Your task to perform on an android device: Open Chrome and go to settings Image 0: 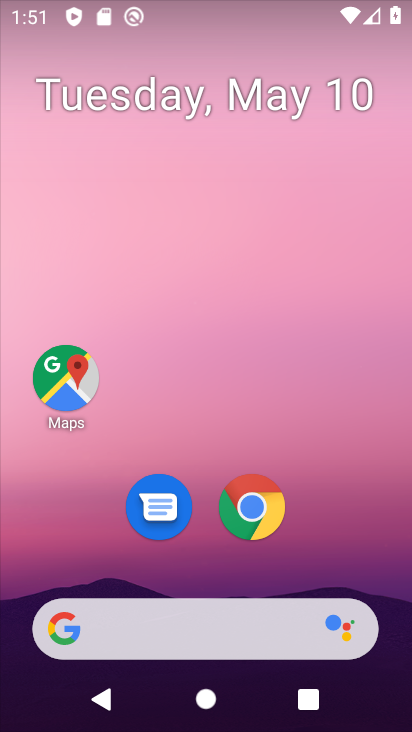
Step 0: click (255, 509)
Your task to perform on an android device: Open Chrome and go to settings Image 1: 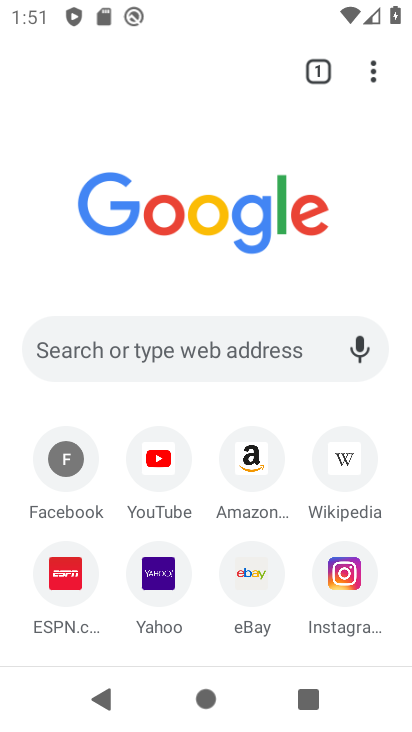
Step 1: task complete